Your task to perform on an android device: What's the weather today? Image 0: 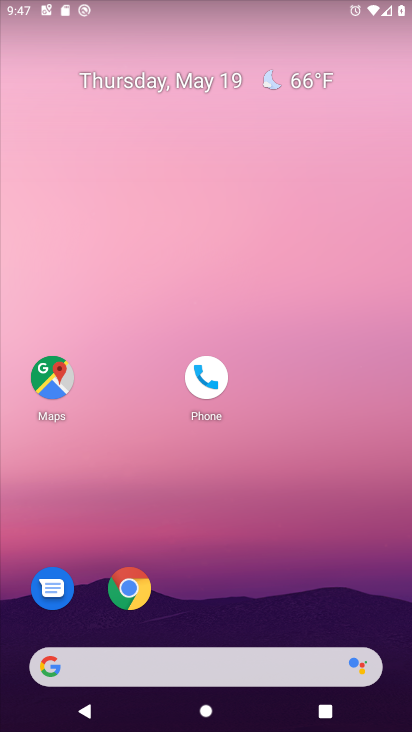
Step 0: click (232, 668)
Your task to perform on an android device: What's the weather today? Image 1: 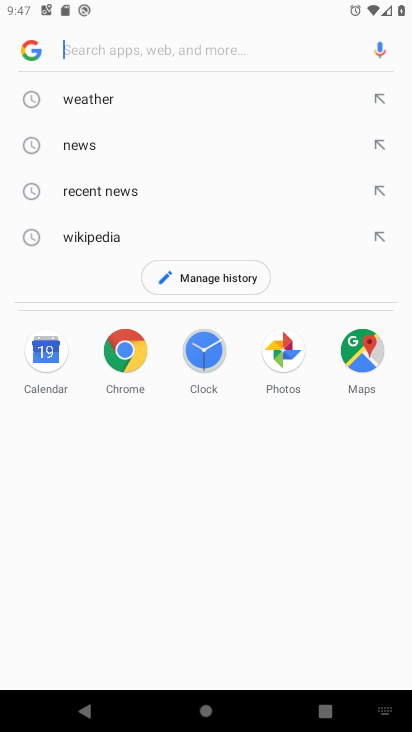
Step 1: click (130, 102)
Your task to perform on an android device: What's the weather today? Image 2: 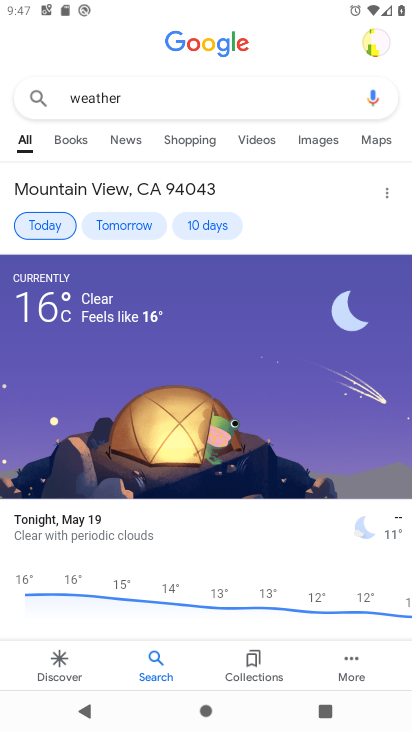
Step 2: click (46, 221)
Your task to perform on an android device: What's the weather today? Image 3: 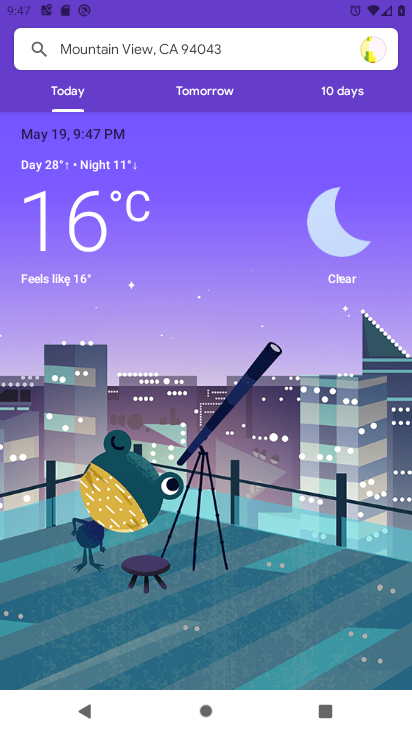
Step 3: task complete